Your task to perform on an android device: Go to internet settings Image 0: 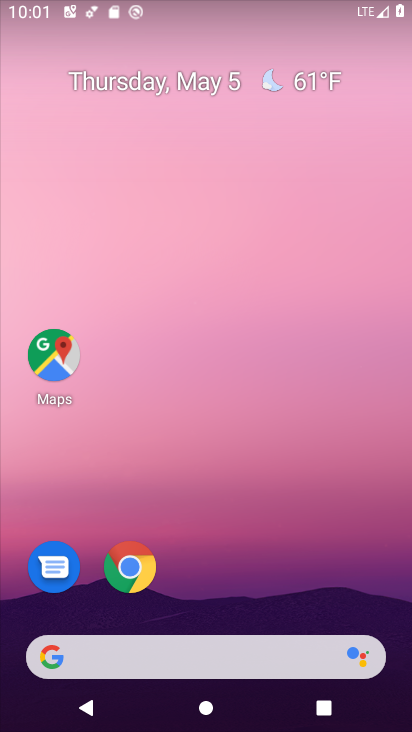
Step 0: drag from (297, 590) to (356, 103)
Your task to perform on an android device: Go to internet settings Image 1: 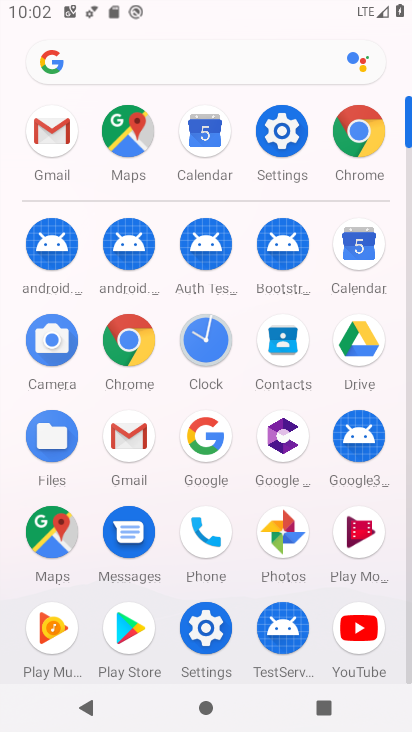
Step 1: click (285, 121)
Your task to perform on an android device: Go to internet settings Image 2: 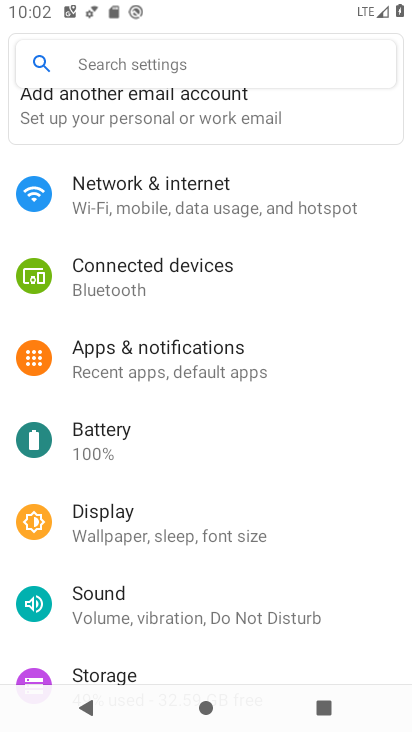
Step 2: click (191, 206)
Your task to perform on an android device: Go to internet settings Image 3: 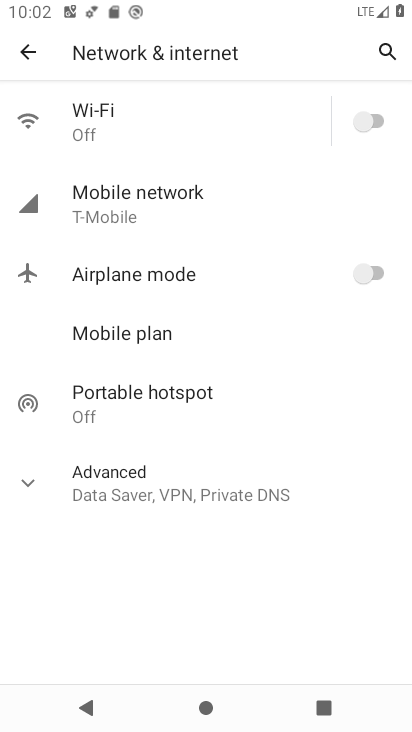
Step 3: task complete